Your task to perform on an android device: Open Yahoo.com Image 0: 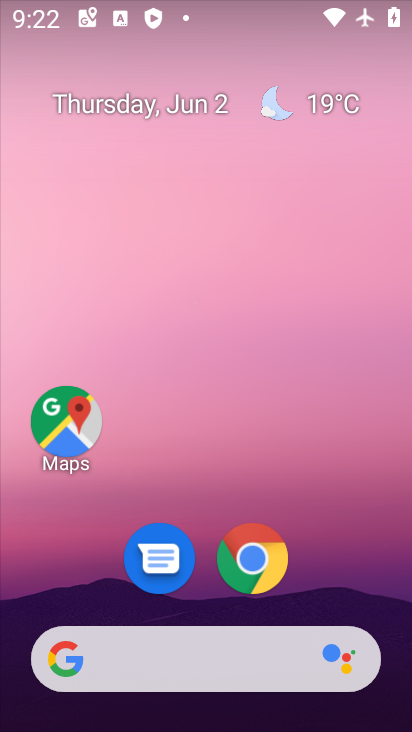
Step 0: click (258, 559)
Your task to perform on an android device: Open Yahoo.com Image 1: 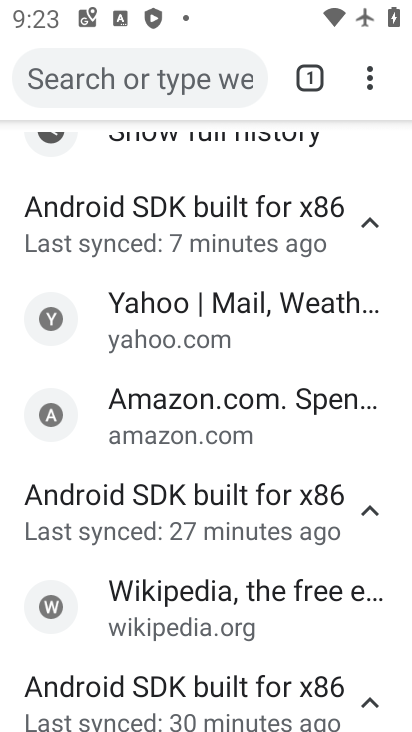
Step 1: click (123, 81)
Your task to perform on an android device: Open Yahoo.com Image 2: 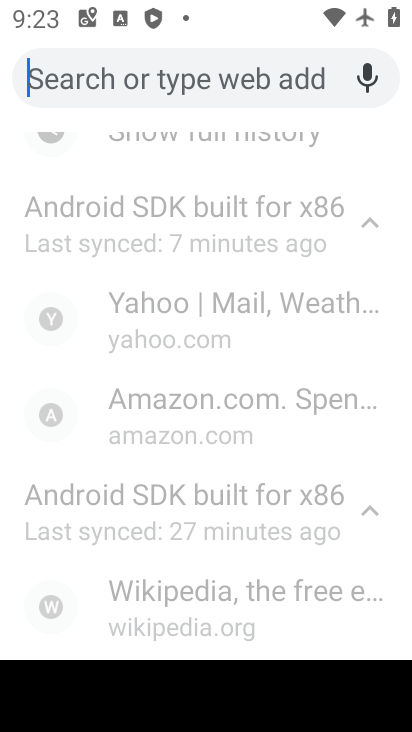
Step 2: type "yahoo.com"
Your task to perform on an android device: Open Yahoo.com Image 3: 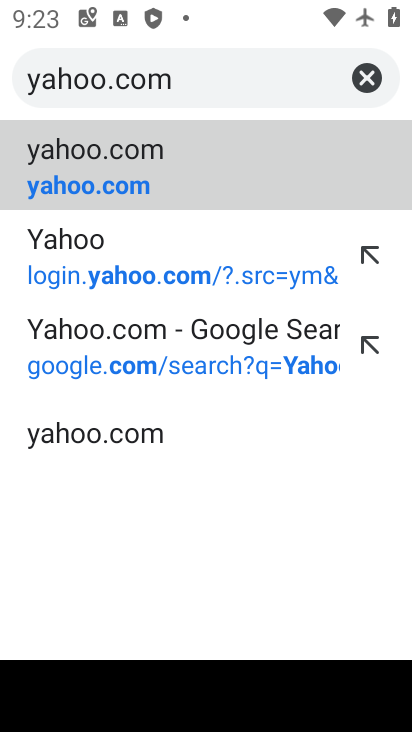
Step 3: click (69, 147)
Your task to perform on an android device: Open Yahoo.com Image 4: 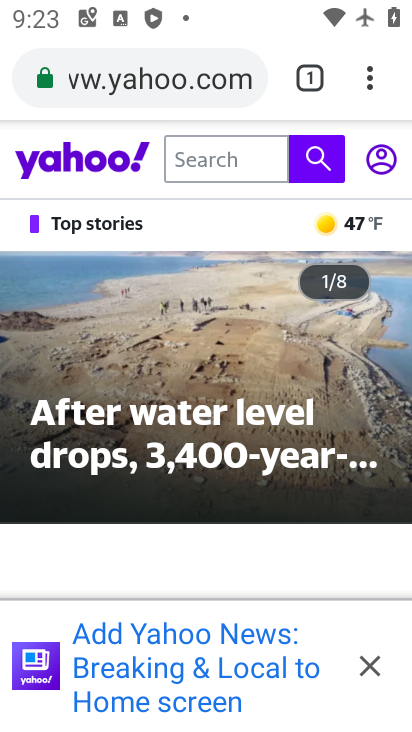
Step 4: task complete